Your task to perform on an android device: open a bookmark in the chrome app Image 0: 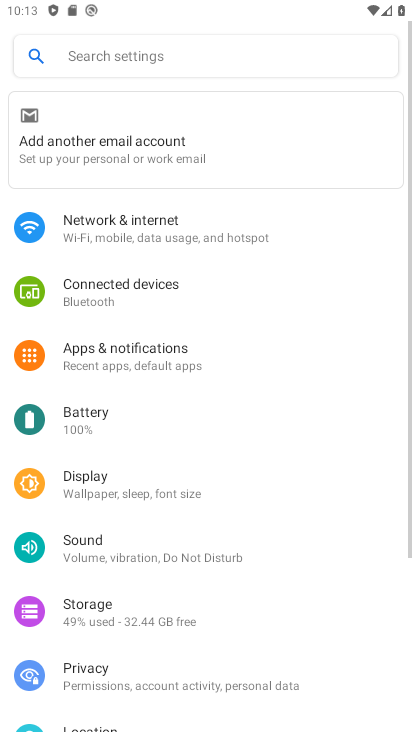
Step 0: press home button
Your task to perform on an android device: open a bookmark in the chrome app Image 1: 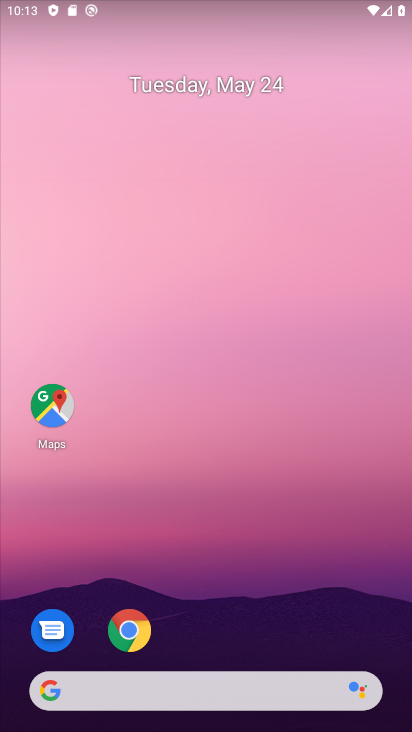
Step 1: click (126, 627)
Your task to perform on an android device: open a bookmark in the chrome app Image 2: 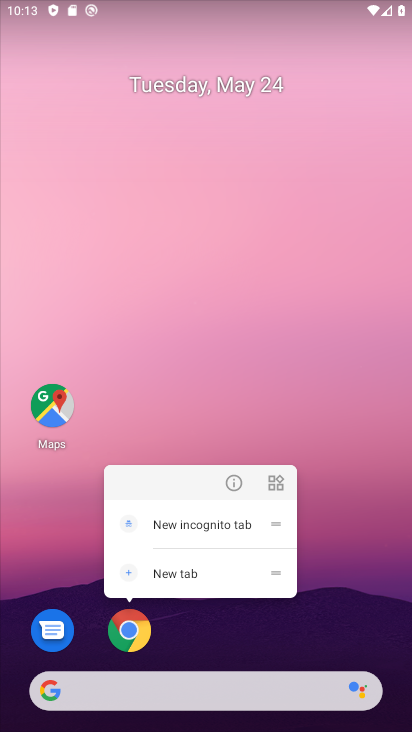
Step 2: click (126, 627)
Your task to perform on an android device: open a bookmark in the chrome app Image 3: 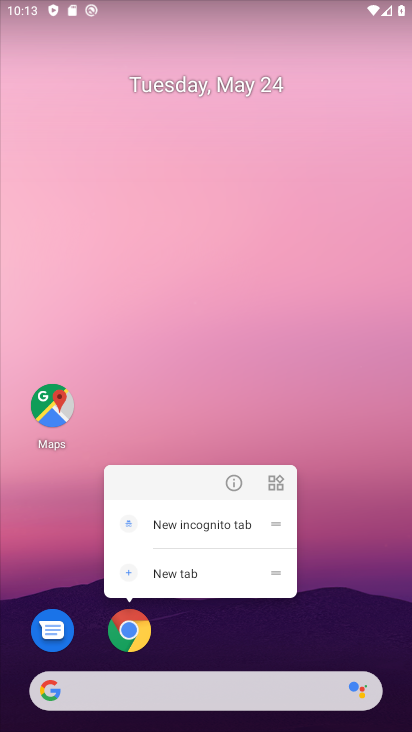
Step 3: click (124, 623)
Your task to perform on an android device: open a bookmark in the chrome app Image 4: 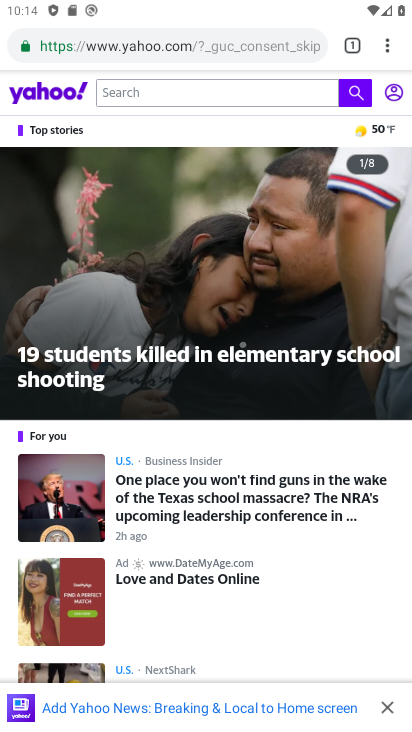
Step 4: click (385, 42)
Your task to perform on an android device: open a bookmark in the chrome app Image 5: 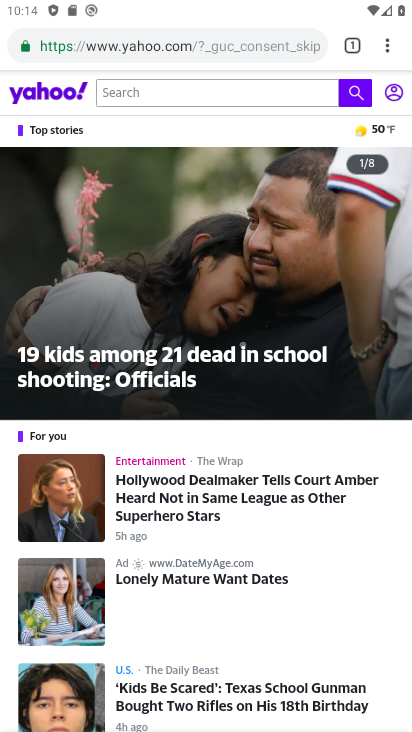
Step 5: click (381, 46)
Your task to perform on an android device: open a bookmark in the chrome app Image 6: 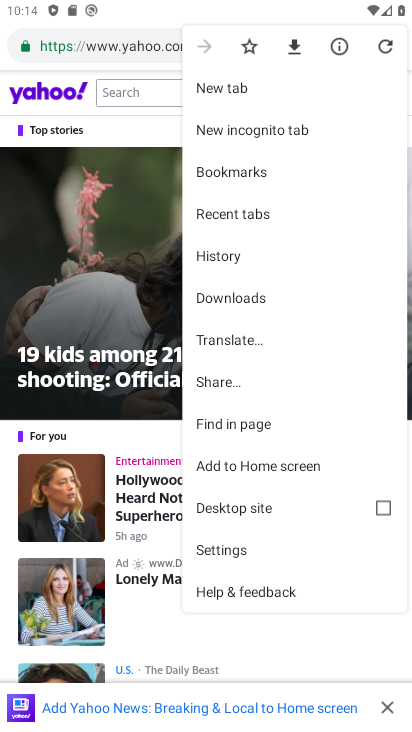
Step 6: click (275, 168)
Your task to perform on an android device: open a bookmark in the chrome app Image 7: 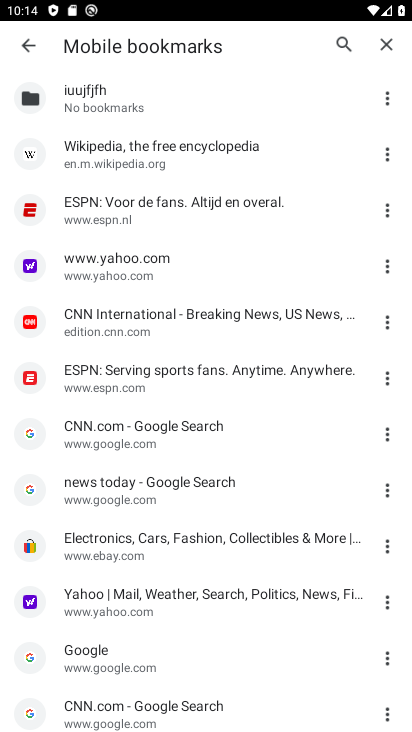
Step 7: click (158, 426)
Your task to perform on an android device: open a bookmark in the chrome app Image 8: 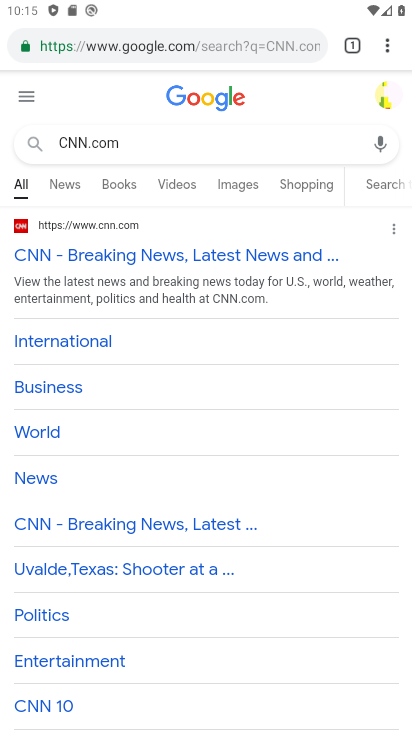
Step 8: task complete